Your task to perform on an android device: turn off notifications in google photos Image 0: 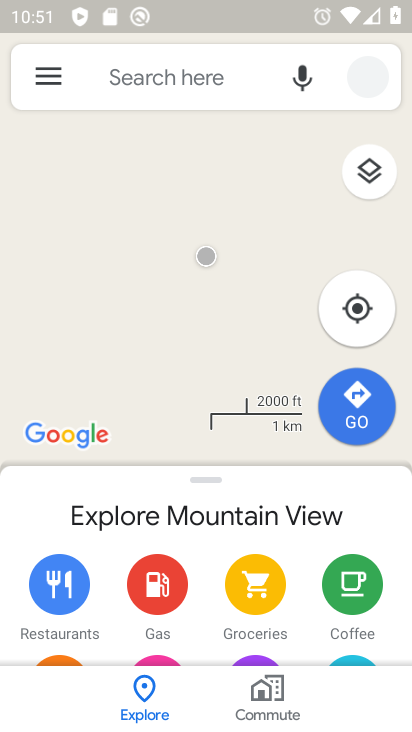
Step 0: press home button
Your task to perform on an android device: turn off notifications in google photos Image 1: 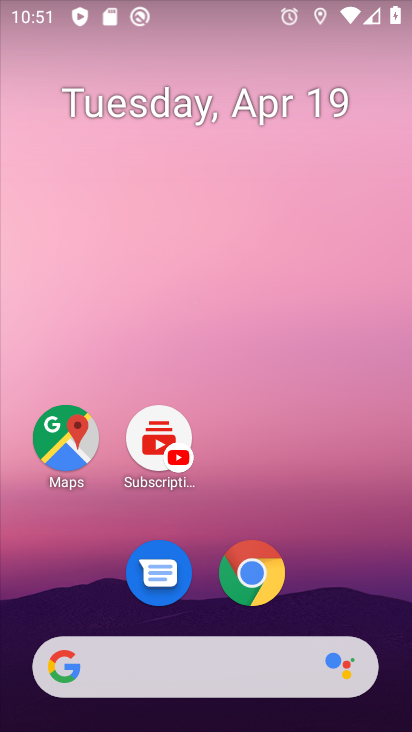
Step 1: drag from (336, 579) to (283, 184)
Your task to perform on an android device: turn off notifications in google photos Image 2: 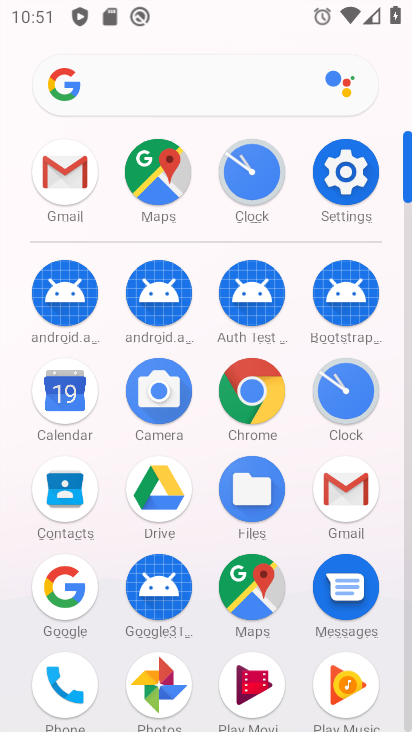
Step 2: drag from (197, 672) to (220, 372)
Your task to perform on an android device: turn off notifications in google photos Image 3: 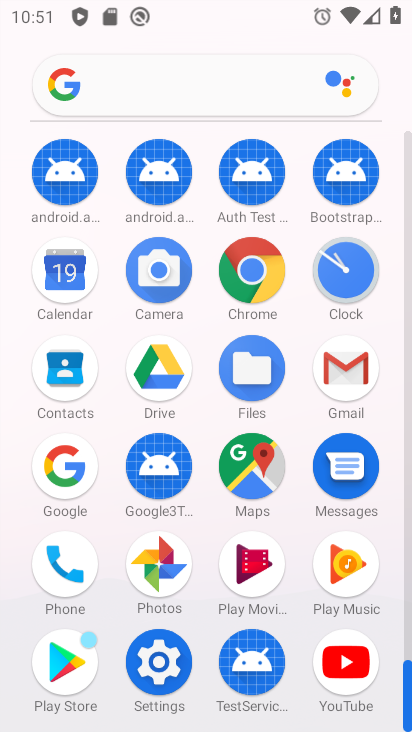
Step 3: click (174, 553)
Your task to perform on an android device: turn off notifications in google photos Image 4: 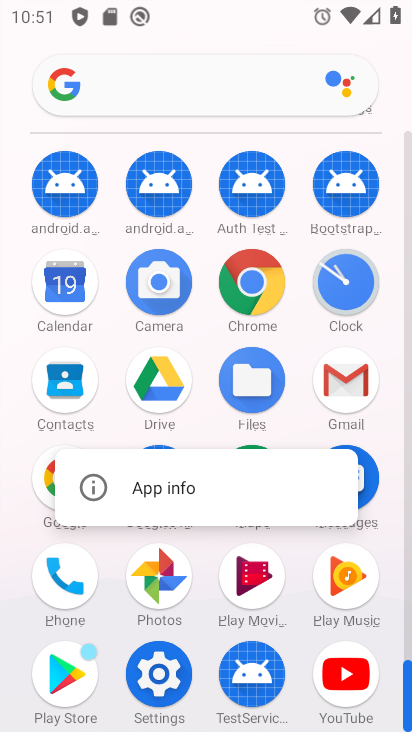
Step 4: click (162, 594)
Your task to perform on an android device: turn off notifications in google photos Image 5: 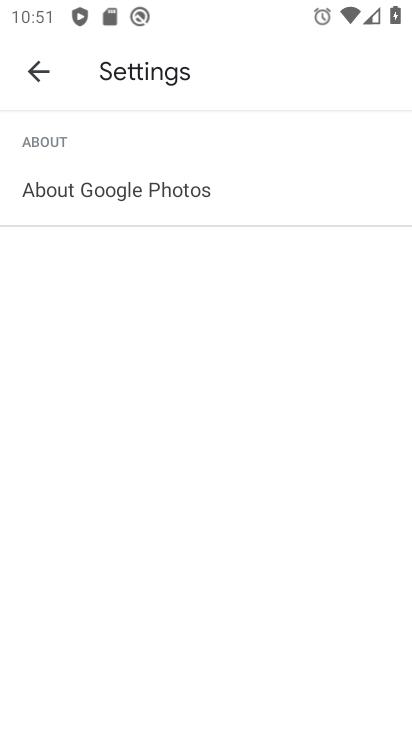
Step 5: click (31, 66)
Your task to perform on an android device: turn off notifications in google photos Image 6: 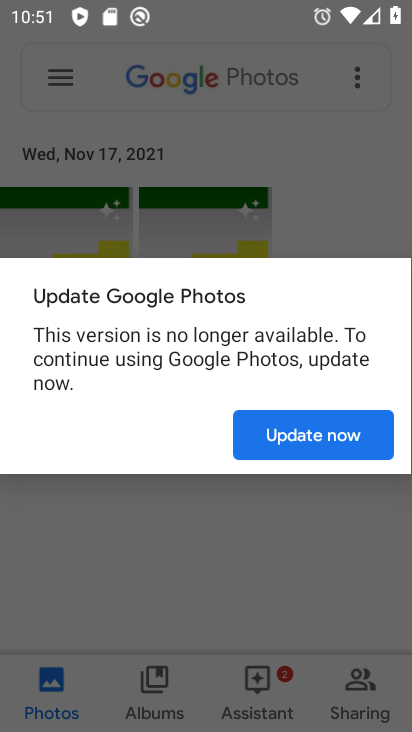
Step 6: click (359, 82)
Your task to perform on an android device: turn off notifications in google photos Image 7: 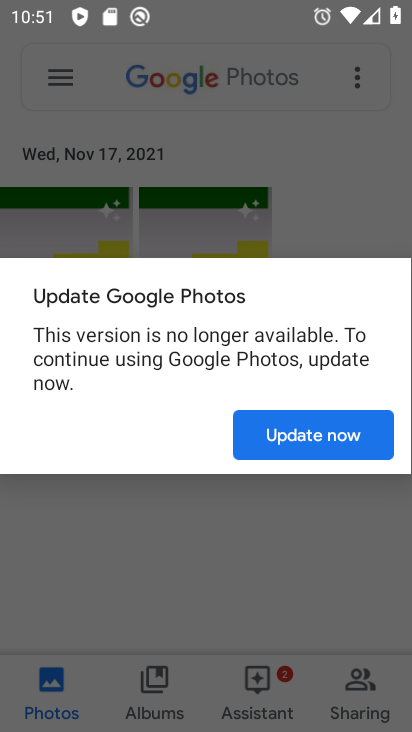
Step 7: click (155, 128)
Your task to perform on an android device: turn off notifications in google photos Image 8: 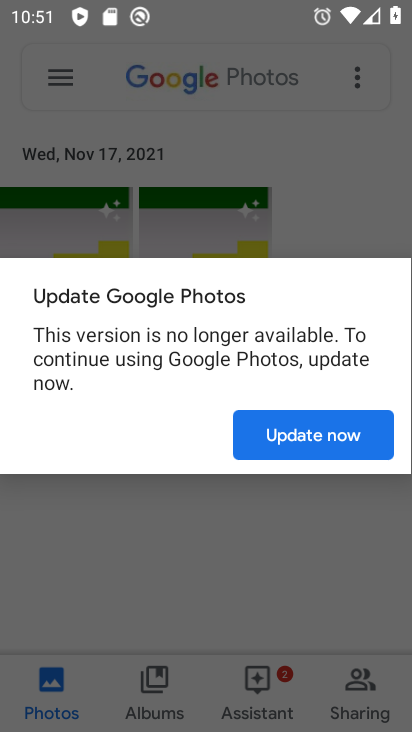
Step 8: press back button
Your task to perform on an android device: turn off notifications in google photos Image 9: 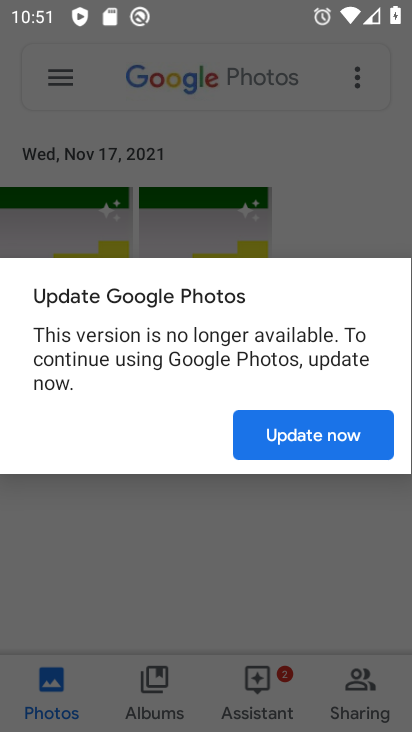
Step 9: click (311, 439)
Your task to perform on an android device: turn off notifications in google photos Image 10: 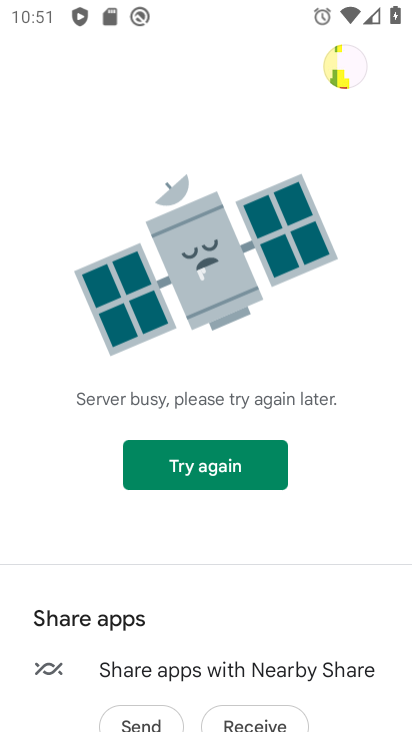
Step 10: click (245, 459)
Your task to perform on an android device: turn off notifications in google photos Image 11: 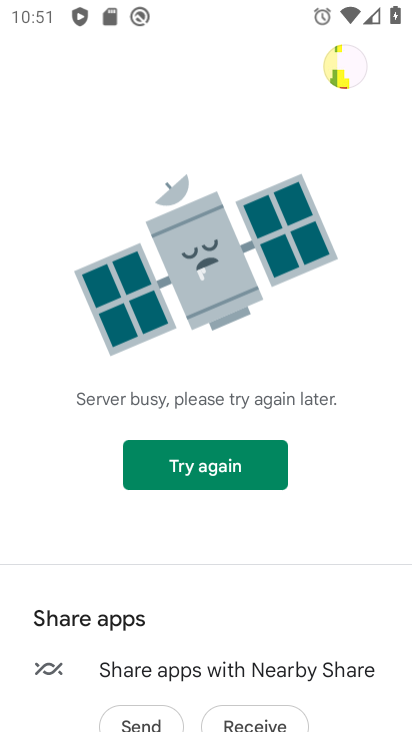
Step 11: press back button
Your task to perform on an android device: turn off notifications in google photos Image 12: 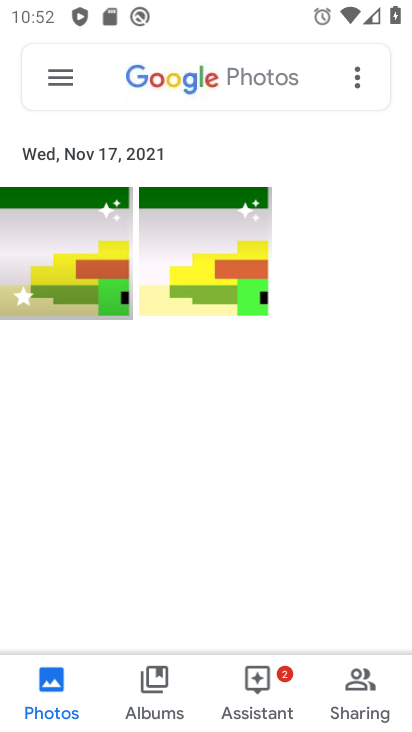
Step 12: click (63, 80)
Your task to perform on an android device: turn off notifications in google photos Image 13: 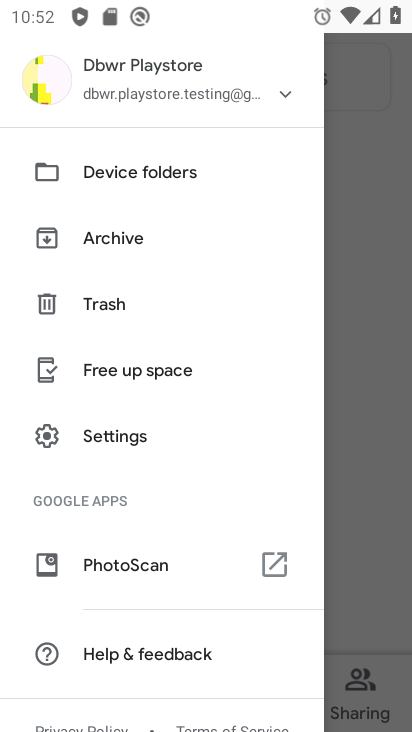
Step 13: click (137, 435)
Your task to perform on an android device: turn off notifications in google photos Image 14: 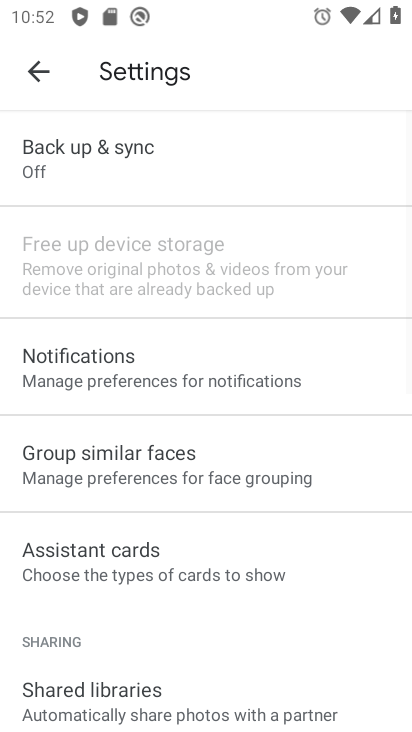
Step 14: click (135, 386)
Your task to perform on an android device: turn off notifications in google photos Image 15: 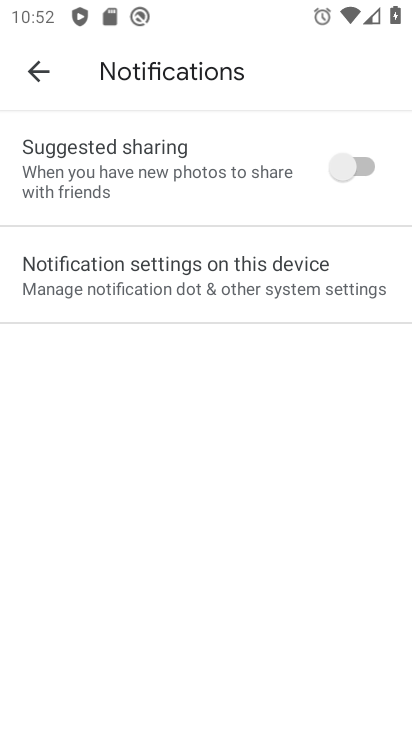
Step 15: click (137, 270)
Your task to perform on an android device: turn off notifications in google photos Image 16: 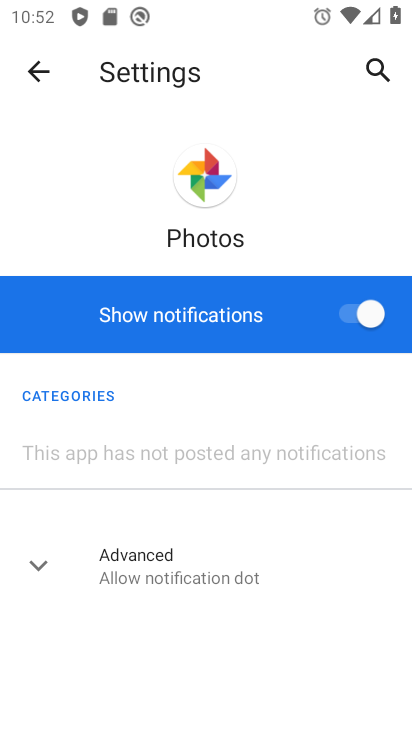
Step 16: click (369, 313)
Your task to perform on an android device: turn off notifications in google photos Image 17: 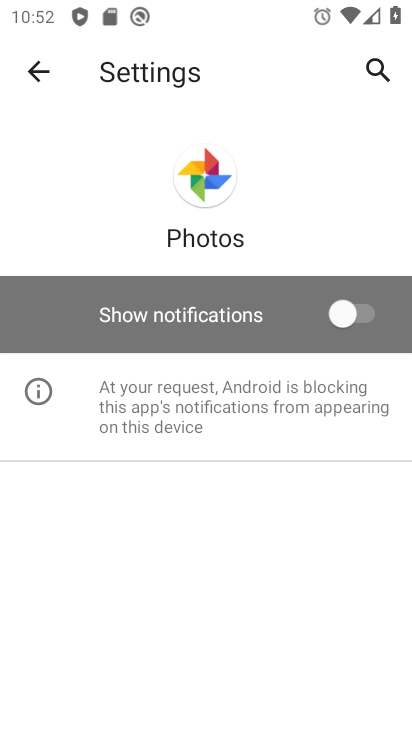
Step 17: task complete